Your task to perform on an android device: Search for sushi restaurants on Maps Image 0: 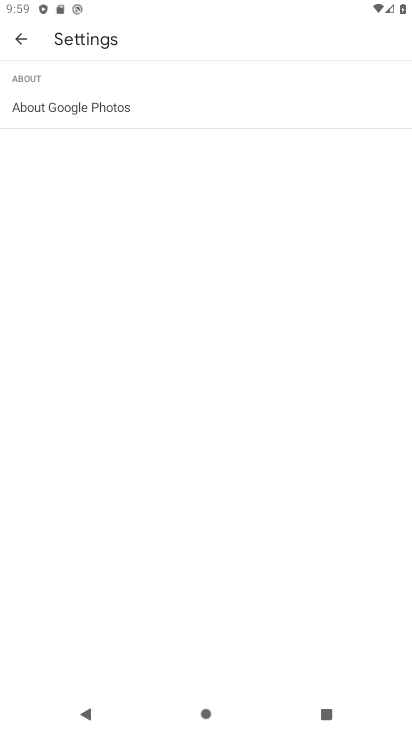
Step 0: press home button
Your task to perform on an android device: Search for sushi restaurants on Maps Image 1: 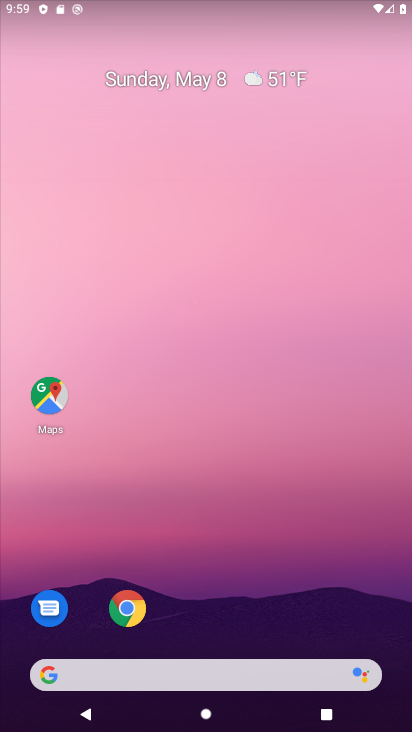
Step 1: click (42, 392)
Your task to perform on an android device: Search for sushi restaurants on Maps Image 2: 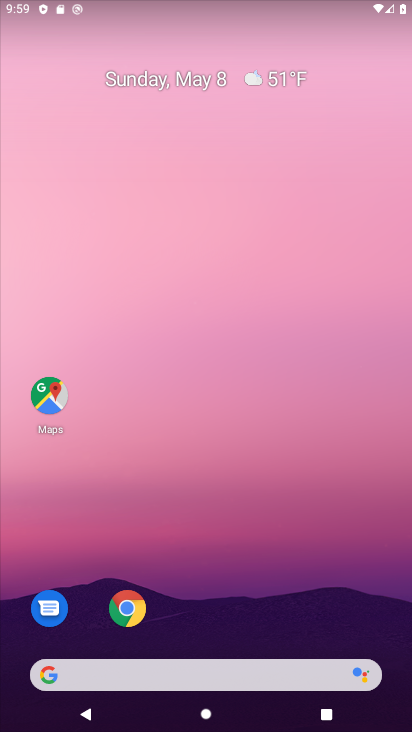
Step 2: click (42, 392)
Your task to perform on an android device: Search for sushi restaurants on Maps Image 3: 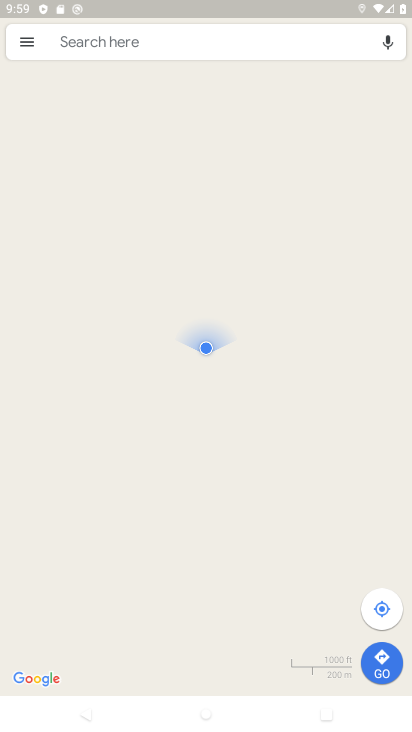
Step 3: click (184, 32)
Your task to perform on an android device: Search for sushi restaurants on Maps Image 4: 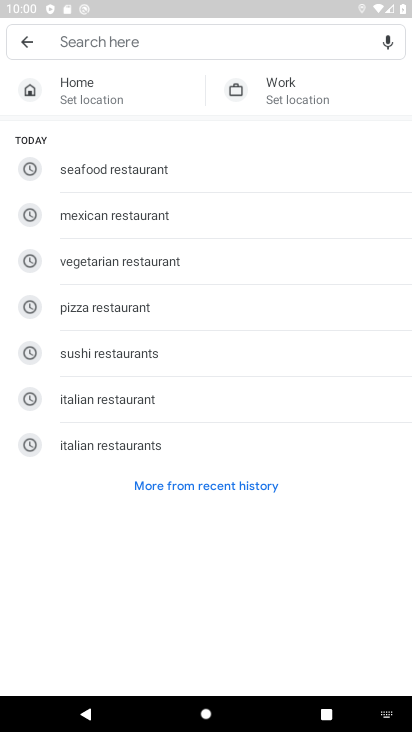
Step 4: type "sushi restaurantgs "
Your task to perform on an android device: Search for sushi restaurants on Maps Image 5: 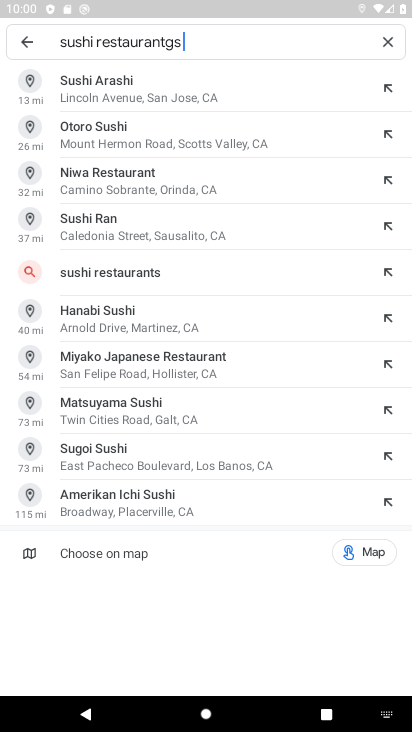
Step 5: click (396, 38)
Your task to perform on an android device: Search for sushi restaurants on Maps Image 6: 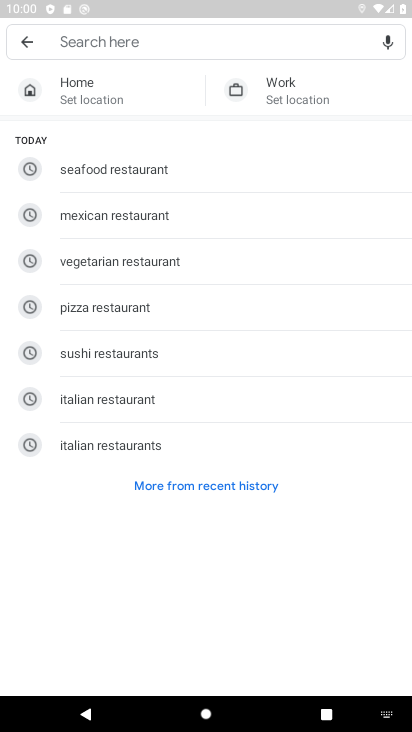
Step 6: type "sushi restaurants "
Your task to perform on an android device: Search for sushi restaurants on Maps Image 7: 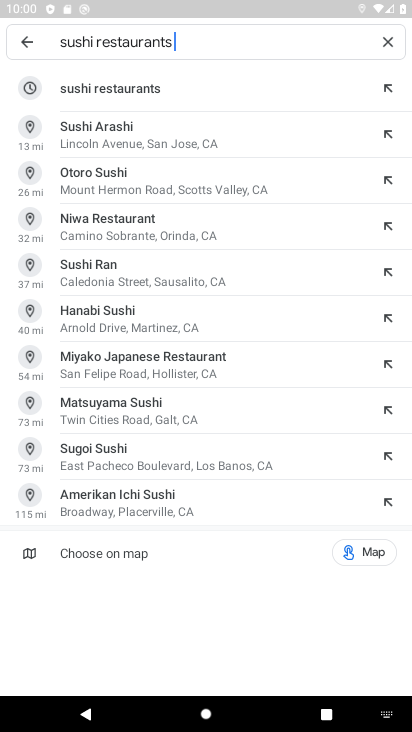
Step 7: click (222, 81)
Your task to perform on an android device: Search for sushi restaurants on Maps Image 8: 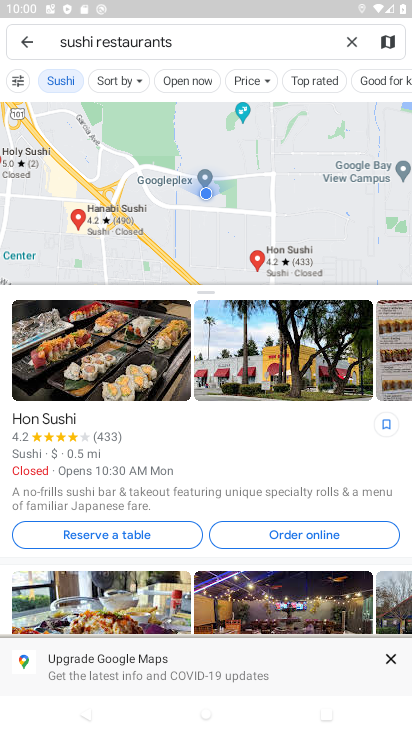
Step 8: task complete